Your task to perform on an android device: search for starred emails in the gmail app Image 0: 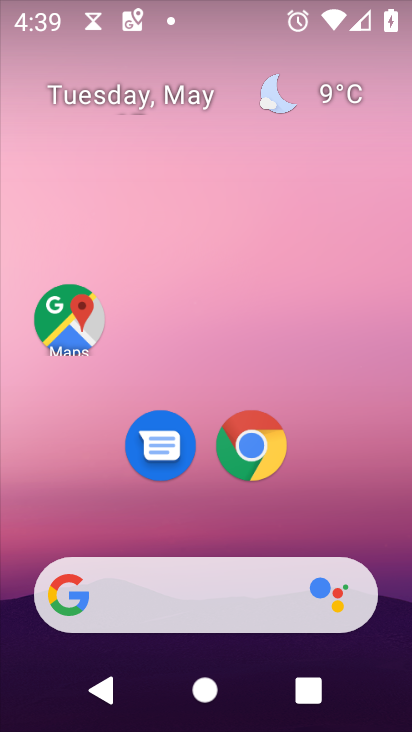
Step 0: drag from (303, 591) to (304, 1)
Your task to perform on an android device: search for starred emails in the gmail app Image 1: 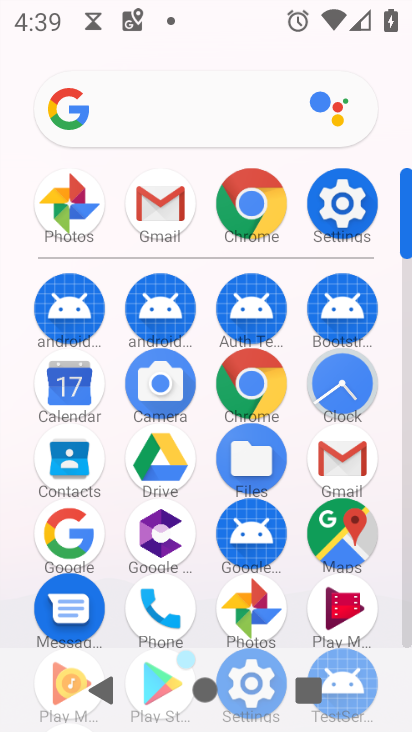
Step 1: click (339, 467)
Your task to perform on an android device: search for starred emails in the gmail app Image 2: 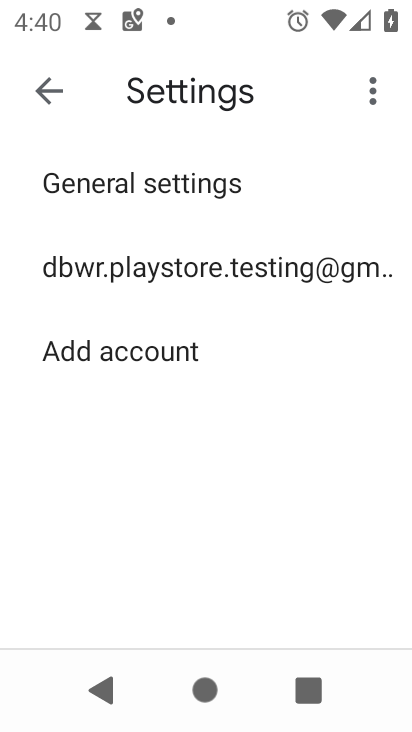
Step 2: press back button
Your task to perform on an android device: search for starred emails in the gmail app Image 3: 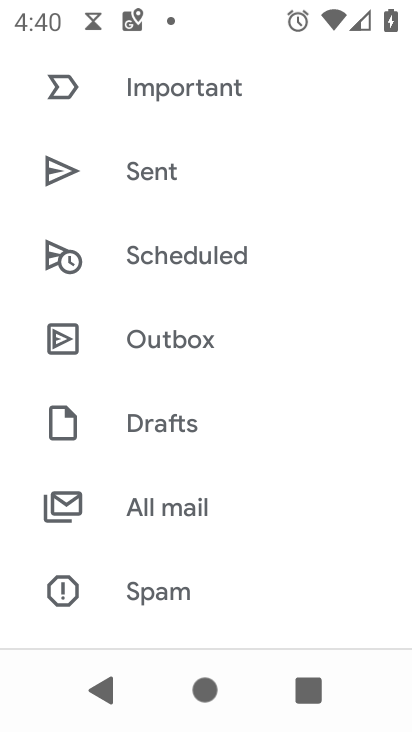
Step 3: press back button
Your task to perform on an android device: search for starred emails in the gmail app Image 4: 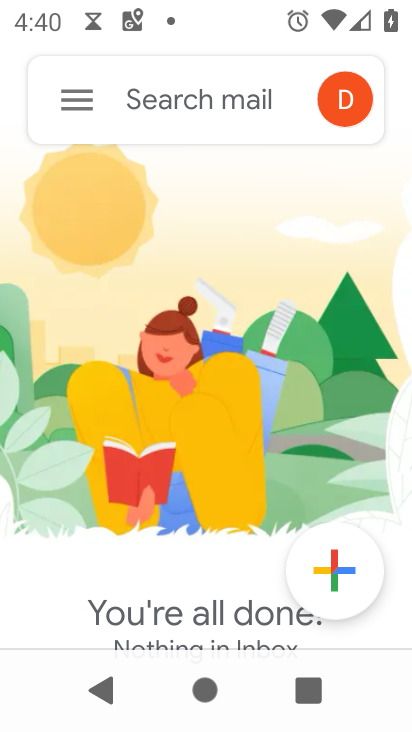
Step 4: click (73, 106)
Your task to perform on an android device: search for starred emails in the gmail app Image 5: 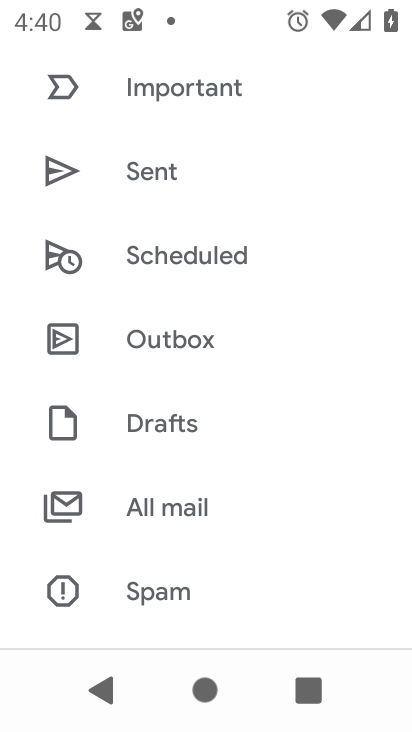
Step 5: drag from (257, 185) to (284, 592)
Your task to perform on an android device: search for starred emails in the gmail app Image 6: 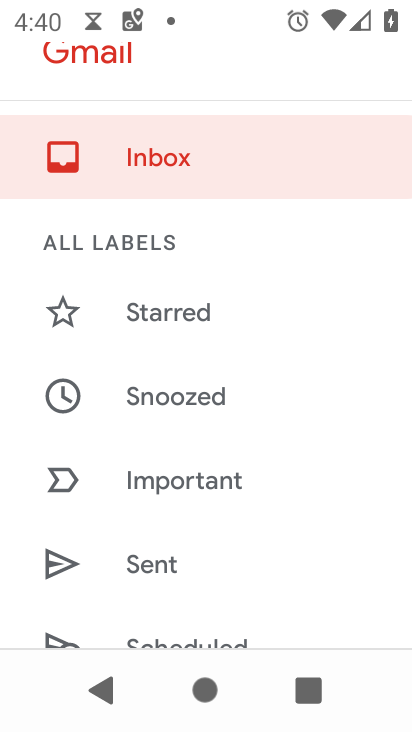
Step 6: click (184, 308)
Your task to perform on an android device: search for starred emails in the gmail app Image 7: 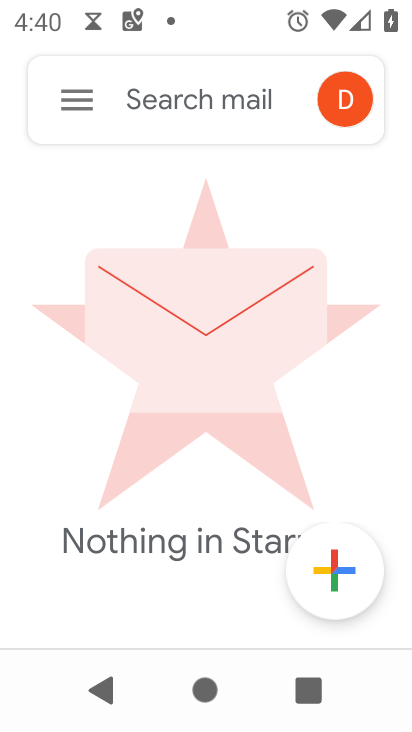
Step 7: task complete